Your task to perform on an android device: set the timer Image 0: 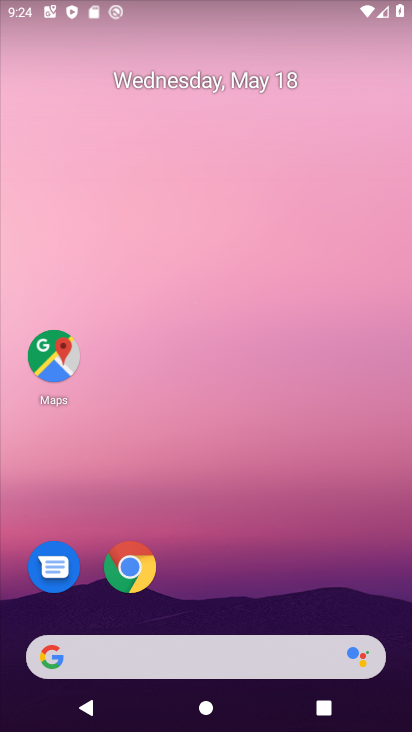
Step 0: drag from (163, 665) to (223, 188)
Your task to perform on an android device: set the timer Image 1: 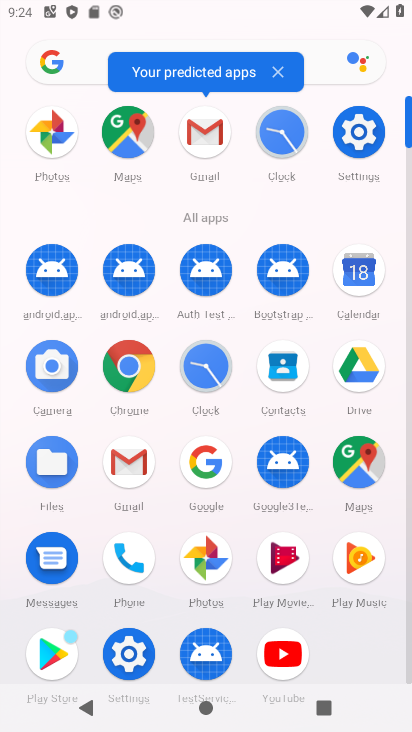
Step 1: click (204, 378)
Your task to perform on an android device: set the timer Image 2: 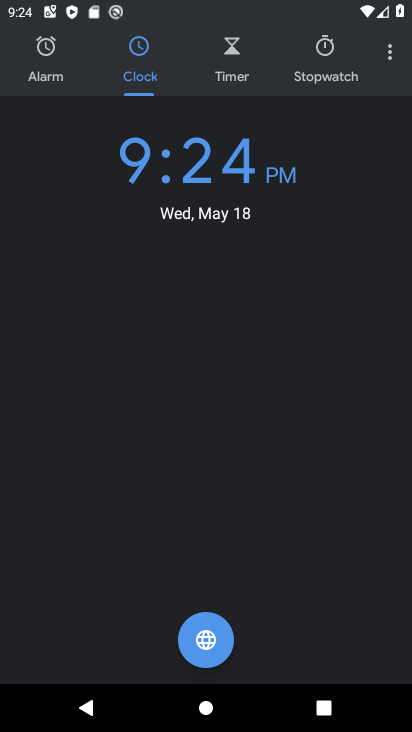
Step 2: click (220, 73)
Your task to perform on an android device: set the timer Image 3: 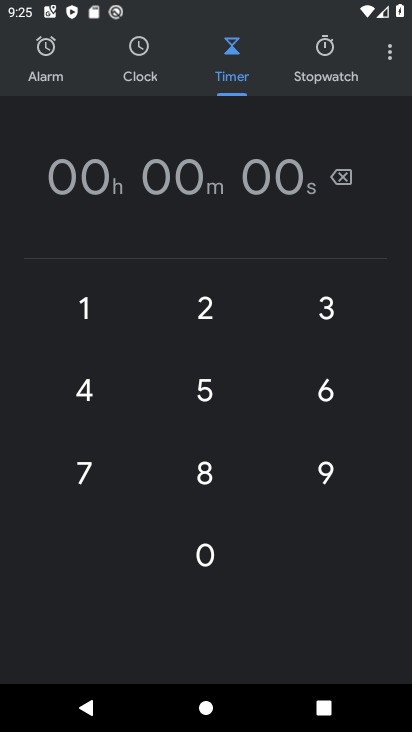
Step 3: click (207, 294)
Your task to perform on an android device: set the timer Image 4: 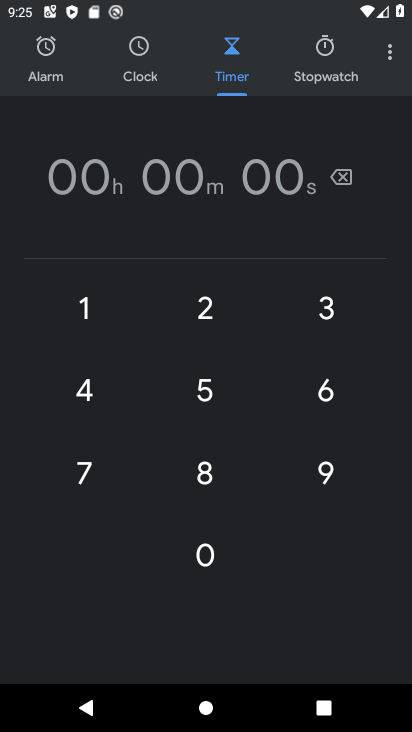
Step 4: click (207, 294)
Your task to perform on an android device: set the timer Image 5: 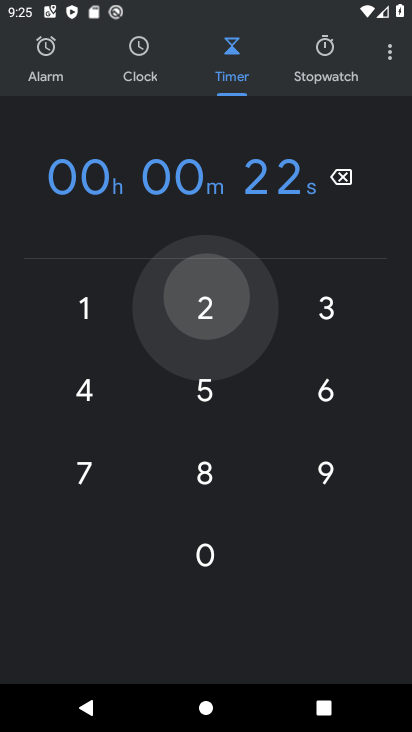
Step 5: click (207, 294)
Your task to perform on an android device: set the timer Image 6: 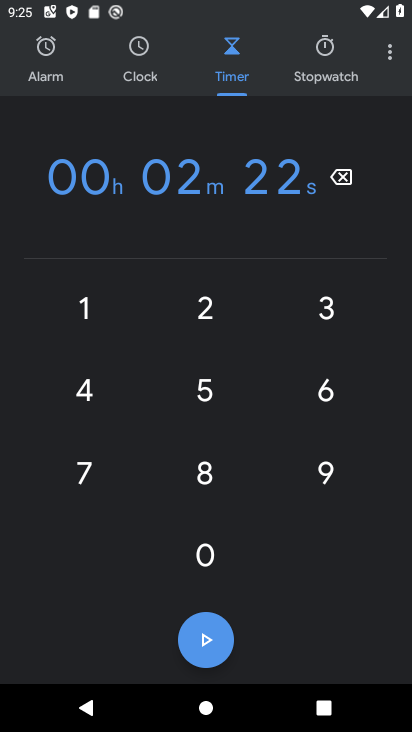
Step 6: click (223, 657)
Your task to perform on an android device: set the timer Image 7: 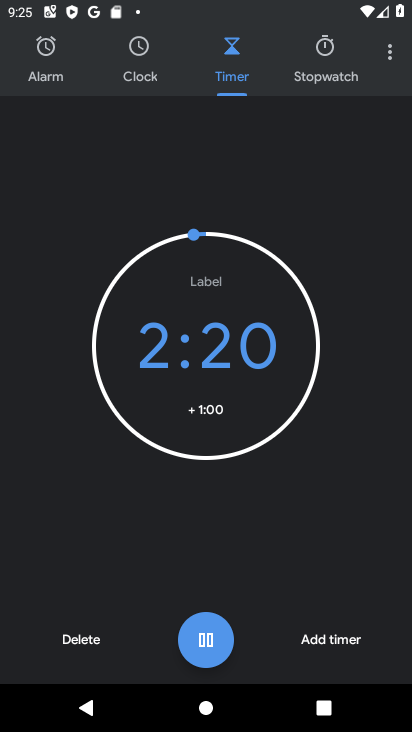
Step 7: task complete